Your task to perform on an android device: Open calendar and show me the second week of next month Image 0: 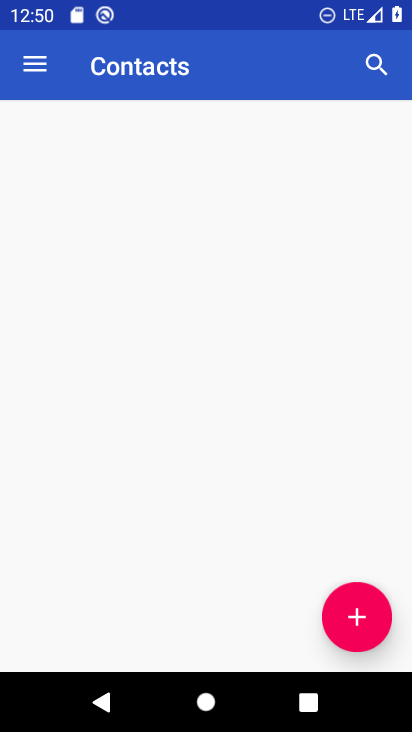
Step 0: press home button
Your task to perform on an android device: Open calendar and show me the second week of next month Image 1: 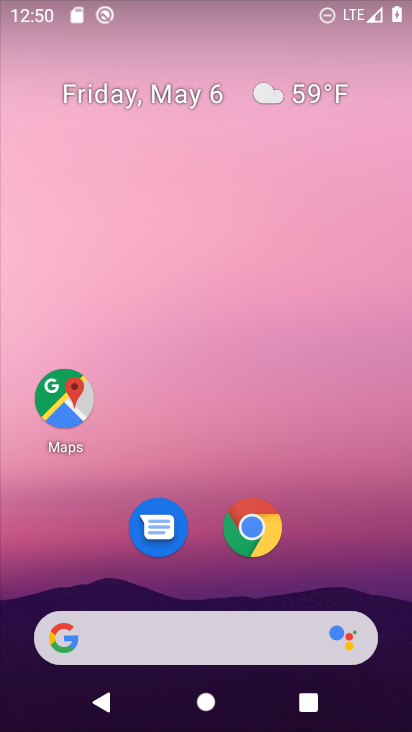
Step 1: drag from (350, 554) to (334, 19)
Your task to perform on an android device: Open calendar and show me the second week of next month Image 2: 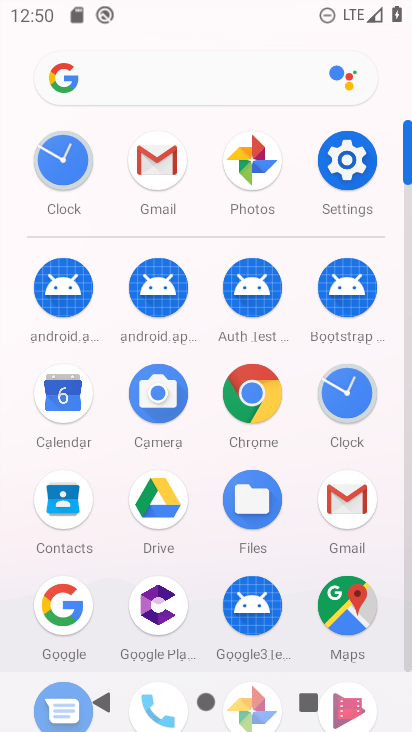
Step 2: click (63, 395)
Your task to perform on an android device: Open calendar and show me the second week of next month Image 3: 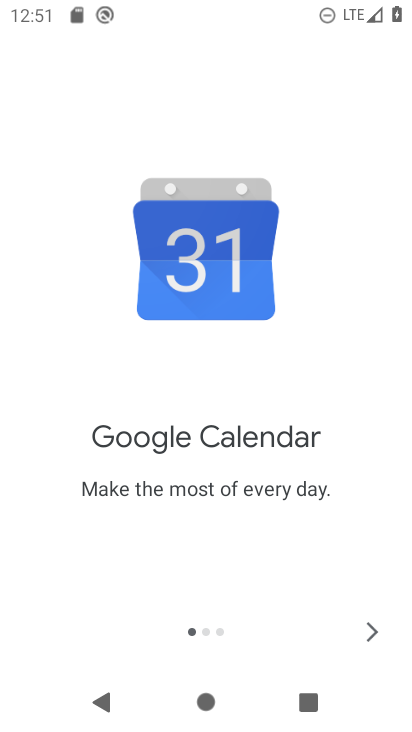
Step 3: click (377, 632)
Your task to perform on an android device: Open calendar and show me the second week of next month Image 4: 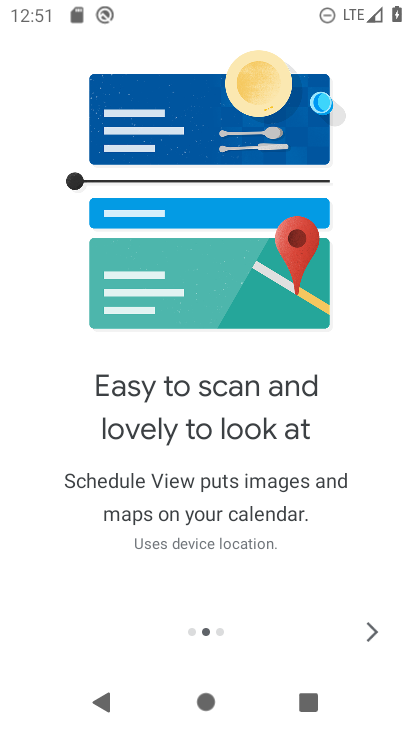
Step 4: click (377, 632)
Your task to perform on an android device: Open calendar and show me the second week of next month Image 5: 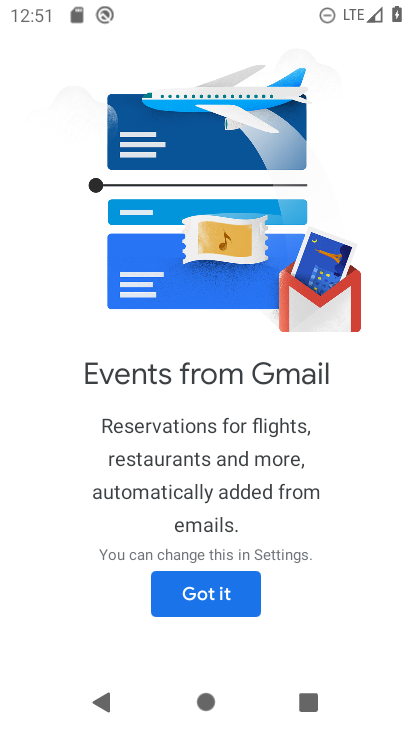
Step 5: click (214, 593)
Your task to perform on an android device: Open calendar and show me the second week of next month Image 6: 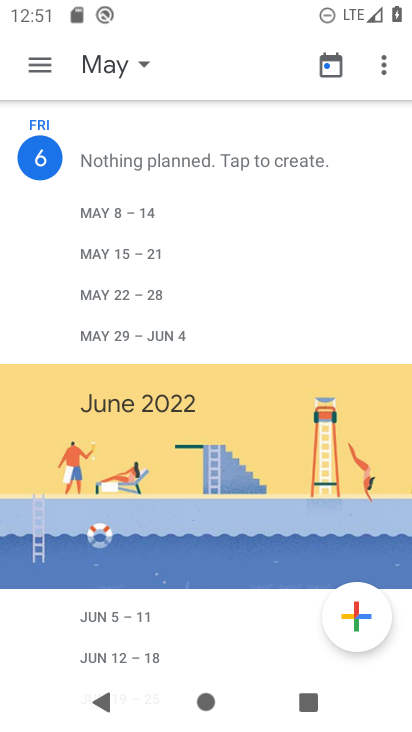
Step 6: click (135, 63)
Your task to perform on an android device: Open calendar and show me the second week of next month Image 7: 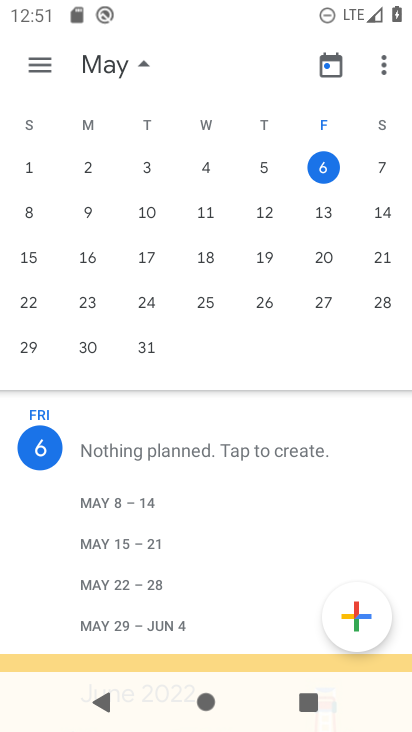
Step 7: drag from (349, 230) to (3, 316)
Your task to perform on an android device: Open calendar and show me the second week of next month Image 8: 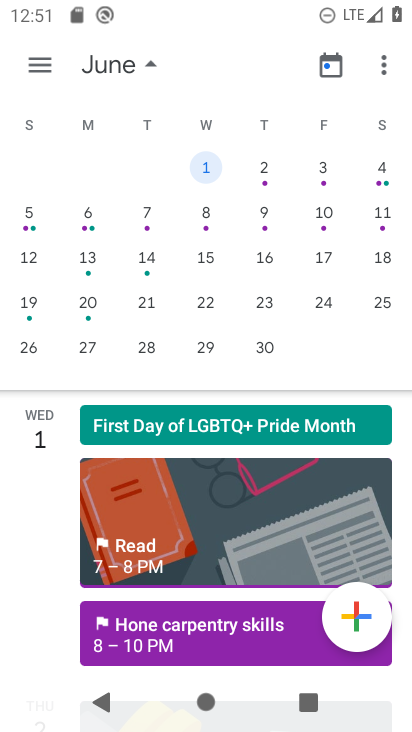
Step 8: click (198, 212)
Your task to perform on an android device: Open calendar and show me the second week of next month Image 9: 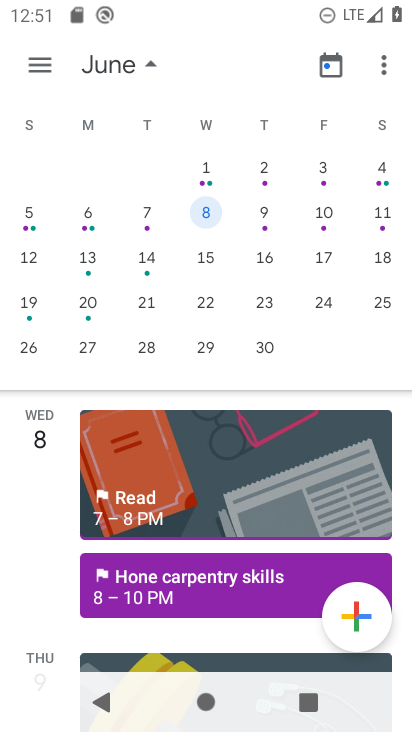
Step 9: click (43, 68)
Your task to perform on an android device: Open calendar and show me the second week of next month Image 10: 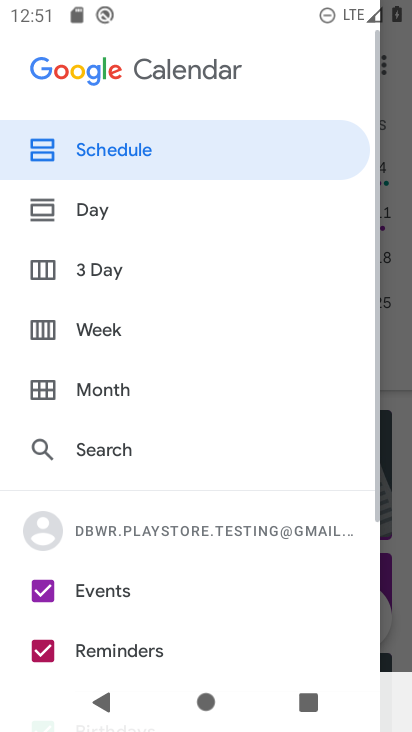
Step 10: click (104, 335)
Your task to perform on an android device: Open calendar and show me the second week of next month Image 11: 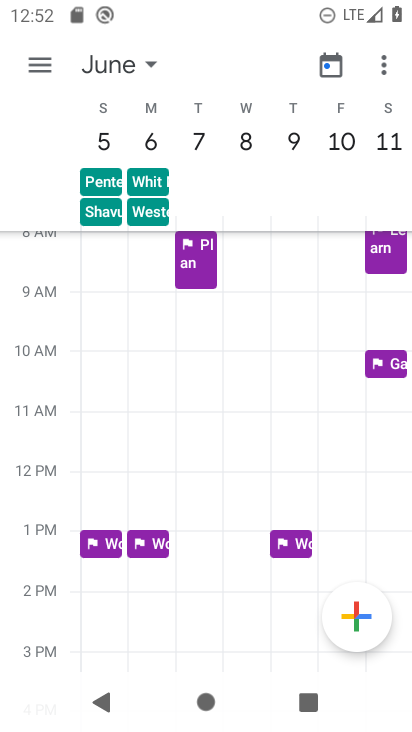
Step 11: task complete